Your task to perform on an android device: toggle improve location accuracy Image 0: 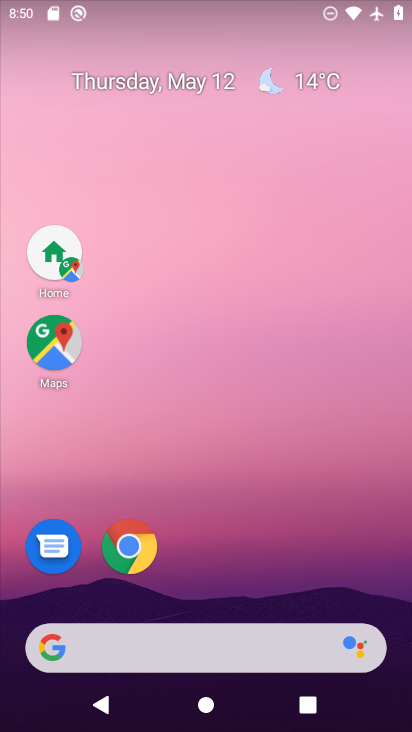
Step 0: drag from (204, 628) to (319, 207)
Your task to perform on an android device: toggle improve location accuracy Image 1: 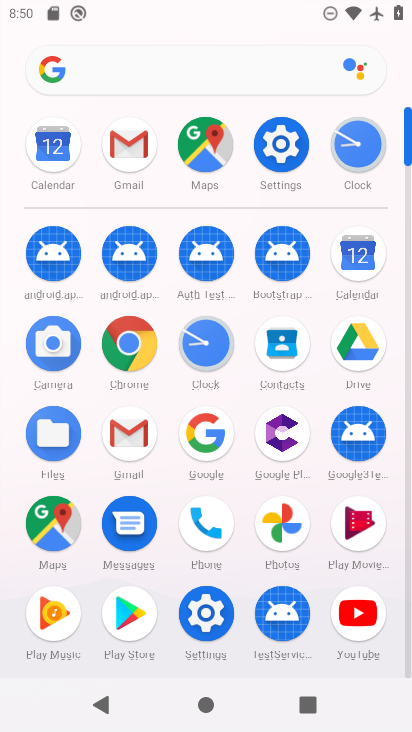
Step 1: click (282, 146)
Your task to perform on an android device: toggle improve location accuracy Image 2: 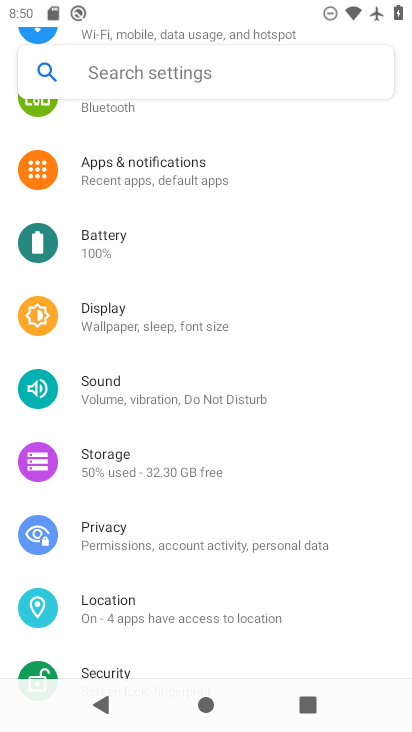
Step 2: click (161, 616)
Your task to perform on an android device: toggle improve location accuracy Image 3: 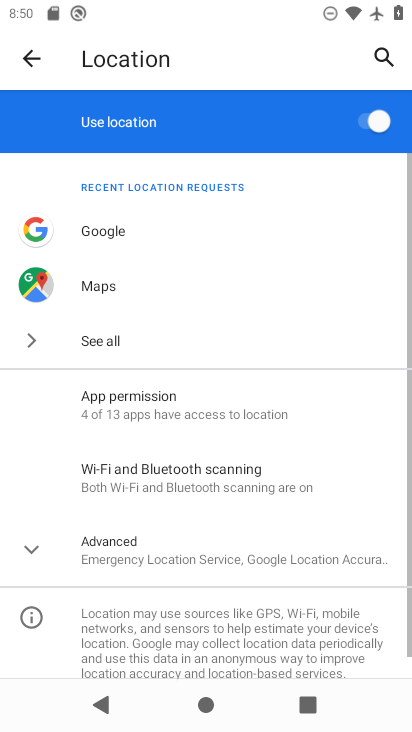
Step 3: click (133, 543)
Your task to perform on an android device: toggle improve location accuracy Image 4: 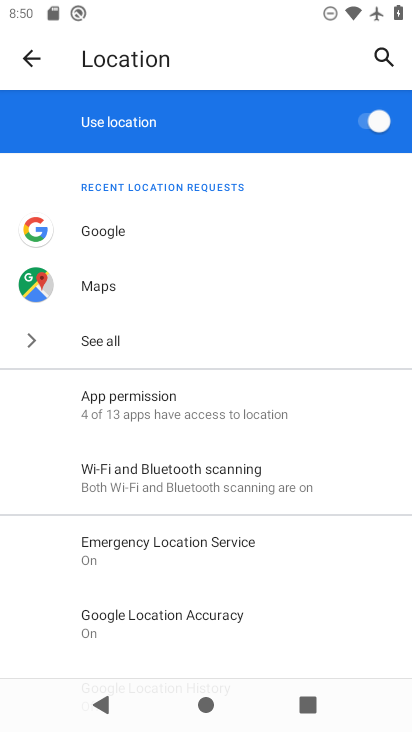
Step 4: click (118, 622)
Your task to perform on an android device: toggle improve location accuracy Image 5: 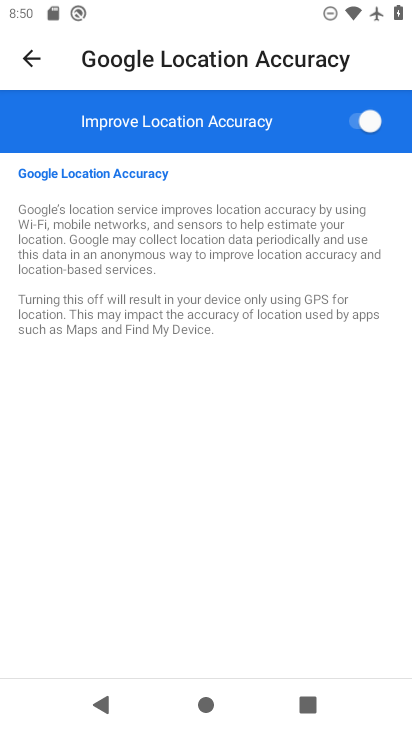
Step 5: click (360, 117)
Your task to perform on an android device: toggle improve location accuracy Image 6: 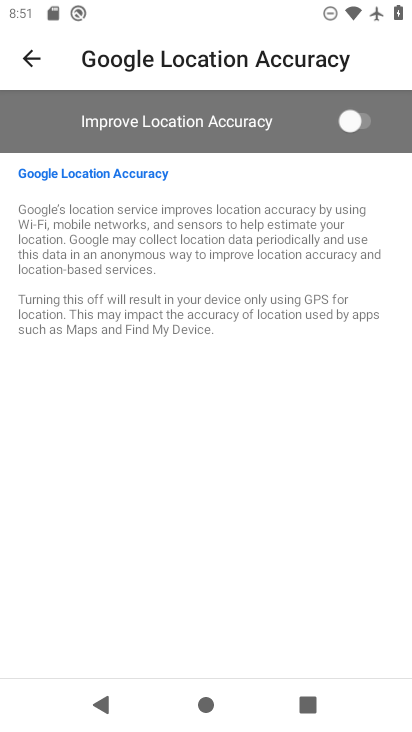
Step 6: task complete